Your task to perform on an android device: What's on my calendar today? Image 0: 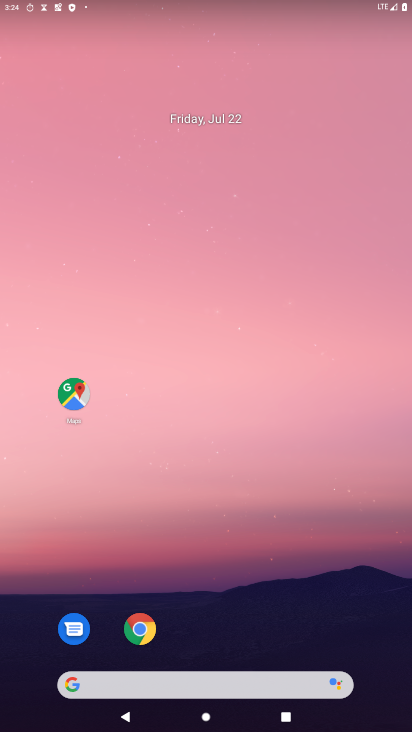
Step 0: drag from (227, 686) to (227, 84)
Your task to perform on an android device: What's on my calendar today? Image 1: 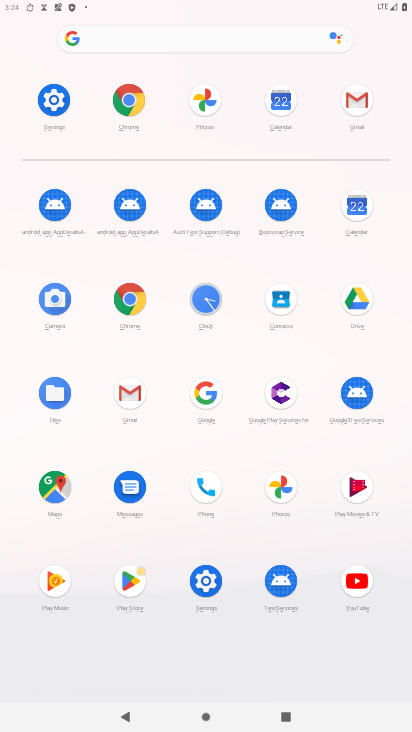
Step 1: click (354, 194)
Your task to perform on an android device: What's on my calendar today? Image 2: 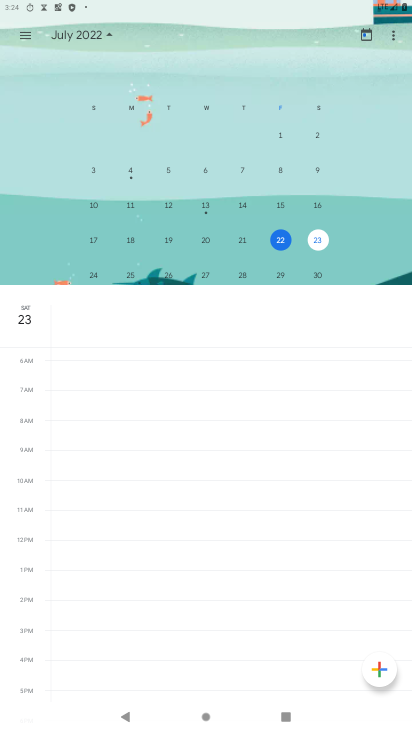
Step 2: click (278, 241)
Your task to perform on an android device: What's on my calendar today? Image 3: 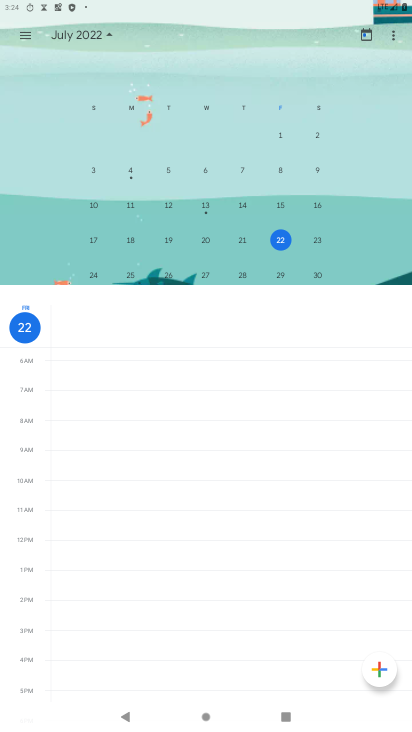
Step 3: task complete